Your task to perform on an android device: Open ESPN.com Image 0: 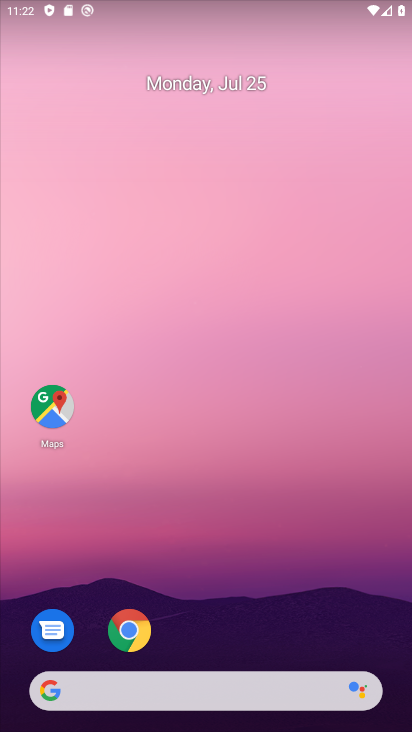
Step 0: drag from (268, 658) to (274, 286)
Your task to perform on an android device: Open ESPN.com Image 1: 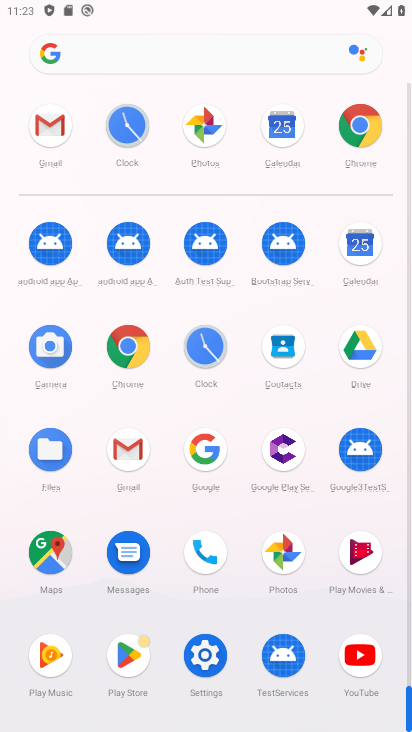
Step 1: click (353, 128)
Your task to perform on an android device: Open ESPN.com Image 2: 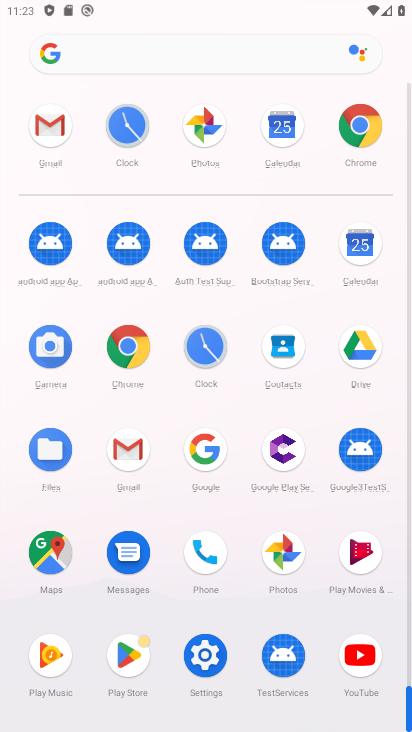
Step 2: click (358, 136)
Your task to perform on an android device: Open ESPN.com Image 3: 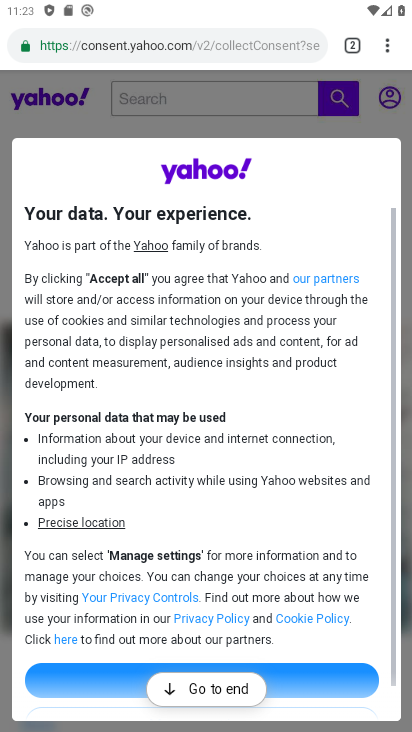
Step 3: click (393, 39)
Your task to perform on an android device: Open ESPN.com Image 4: 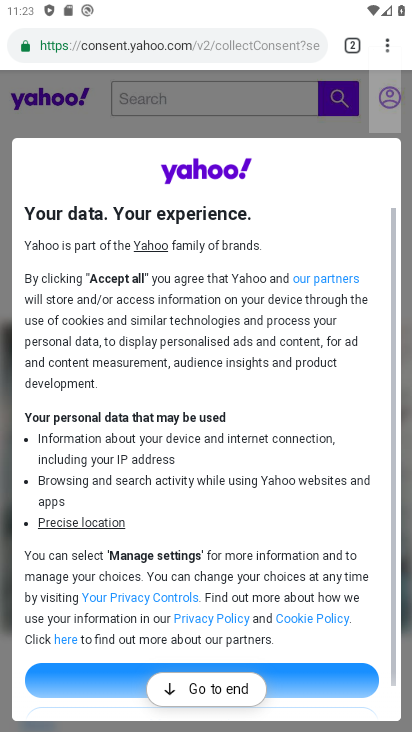
Step 4: click (392, 39)
Your task to perform on an android device: Open ESPN.com Image 5: 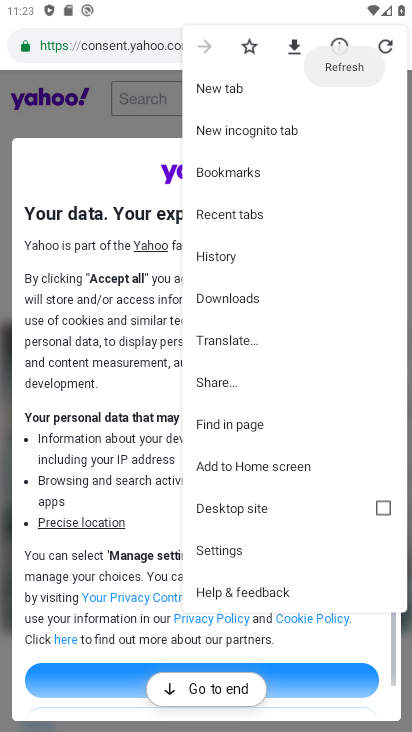
Step 5: click (232, 81)
Your task to perform on an android device: Open ESPN.com Image 6: 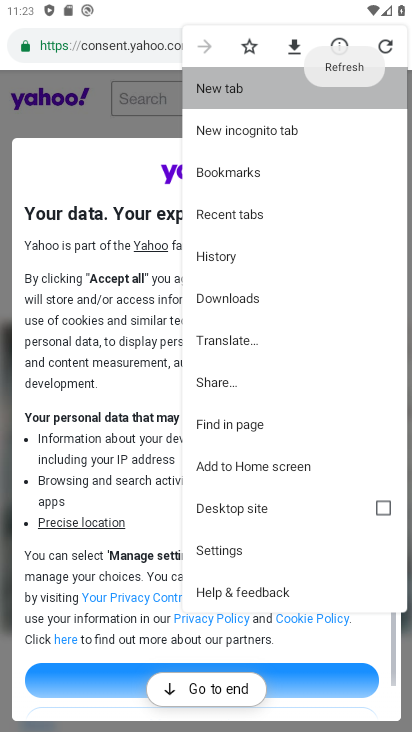
Step 6: click (220, 88)
Your task to perform on an android device: Open ESPN.com Image 7: 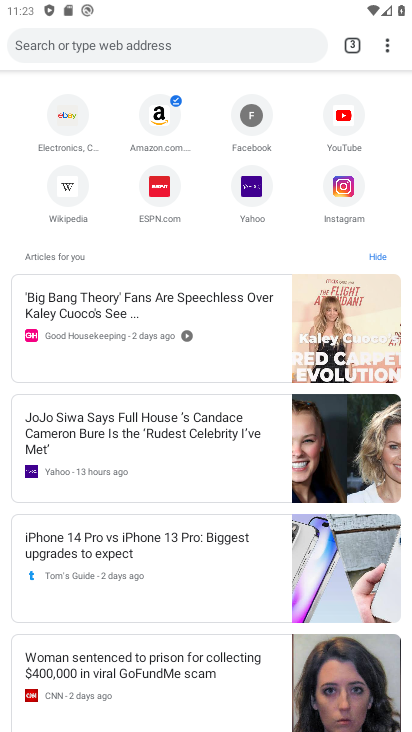
Step 7: click (167, 193)
Your task to perform on an android device: Open ESPN.com Image 8: 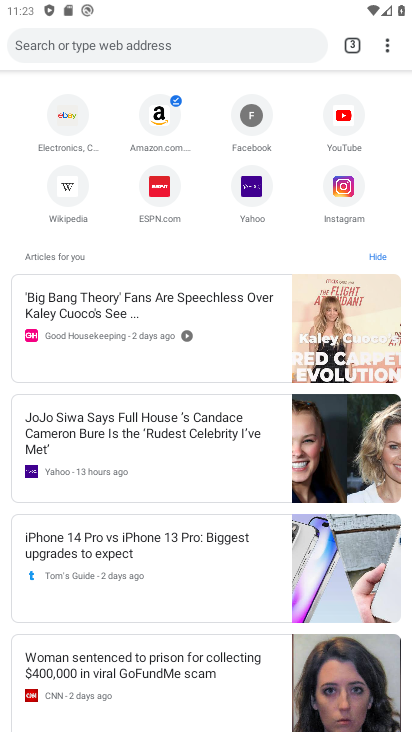
Step 8: click (166, 191)
Your task to perform on an android device: Open ESPN.com Image 9: 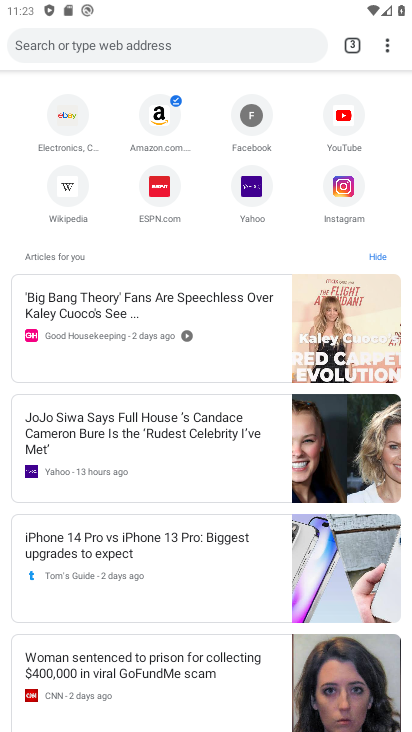
Step 9: click (167, 191)
Your task to perform on an android device: Open ESPN.com Image 10: 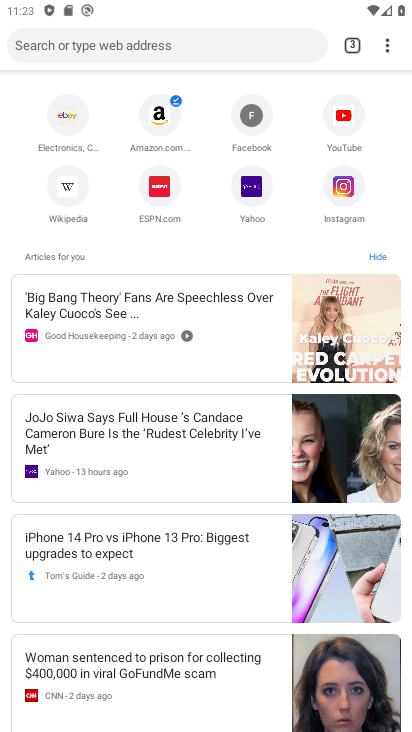
Step 10: click (168, 190)
Your task to perform on an android device: Open ESPN.com Image 11: 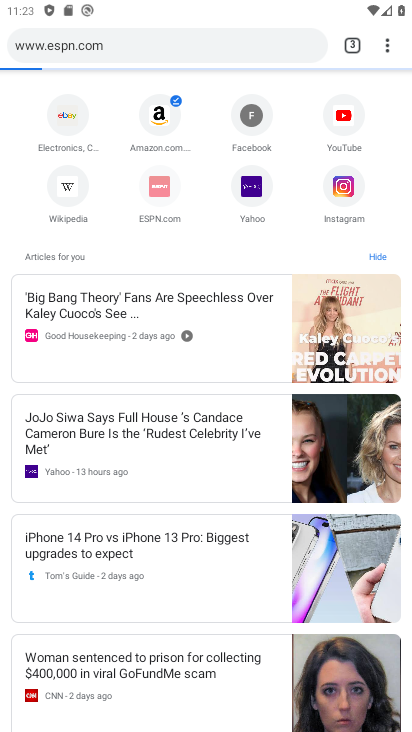
Step 11: click (173, 188)
Your task to perform on an android device: Open ESPN.com Image 12: 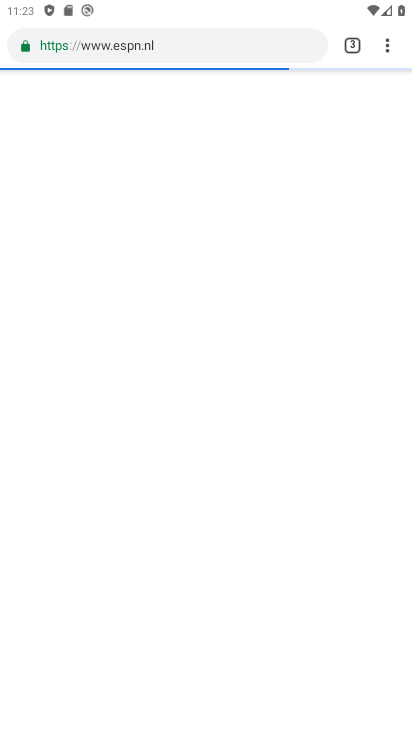
Step 12: task complete